Your task to perform on an android device: Do I have any events tomorrow? Image 0: 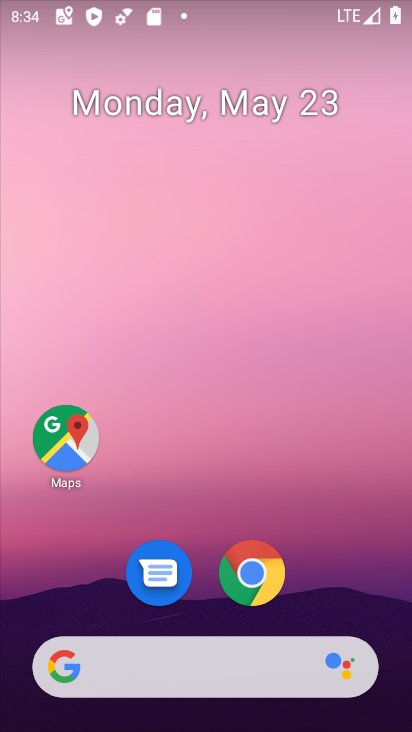
Step 0: drag from (163, 498) to (184, 19)
Your task to perform on an android device: Do I have any events tomorrow? Image 1: 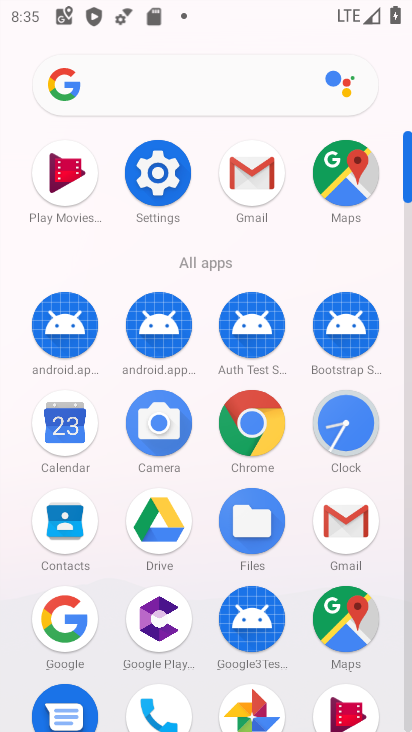
Step 1: click (66, 414)
Your task to perform on an android device: Do I have any events tomorrow? Image 2: 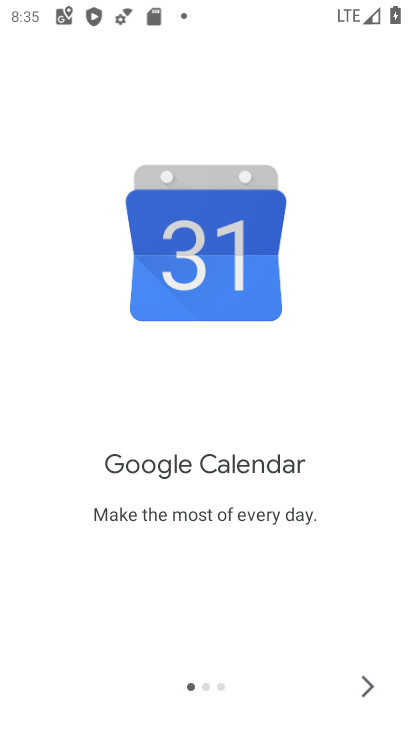
Step 2: click (372, 684)
Your task to perform on an android device: Do I have any events tomorrow? Image 3: 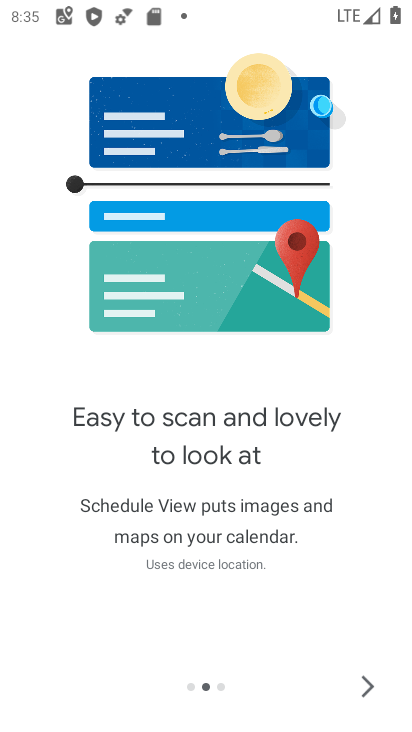
Step 3: click (370, 684)
Your task to perform on an android device: Do I have any events tomorrow? Image 4: 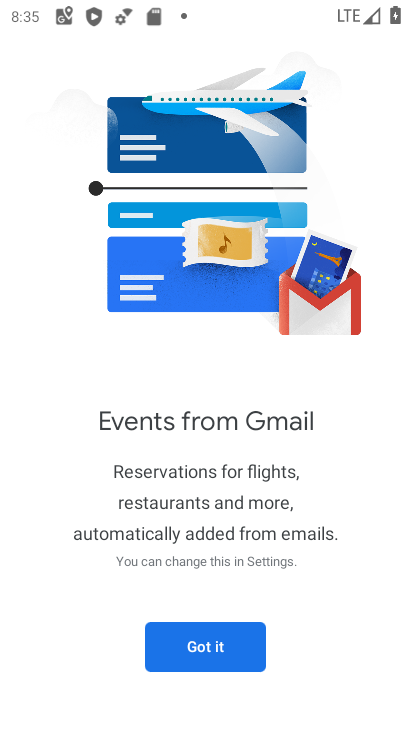
Step 4: click (241, 637)
Your task to perform on an android device: Do I have any events tomorrow? Image 5: 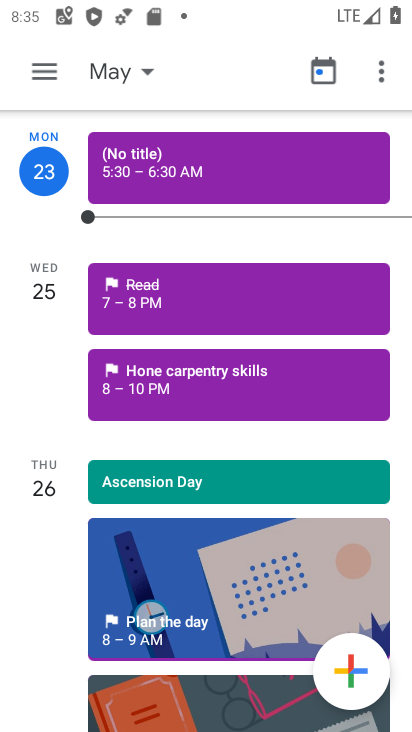
Step 5: click (43, 66)
Your task to perform on an android device: Do I have any events tomorrow? Image 6: 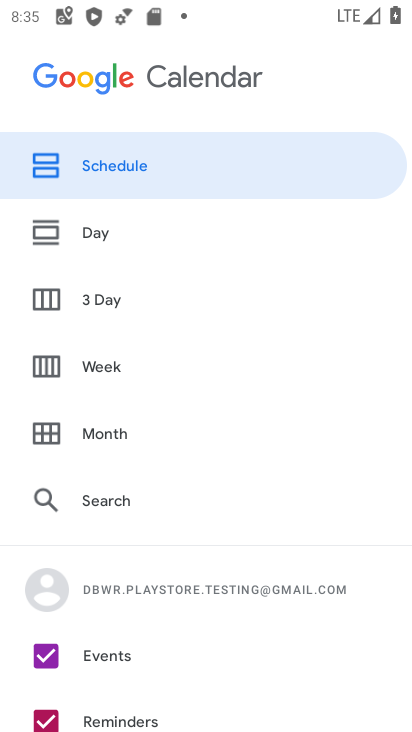
Step 6: click (81, 360)
Your task to perform on an android device: Do I have any events tomorrow? Image 7: 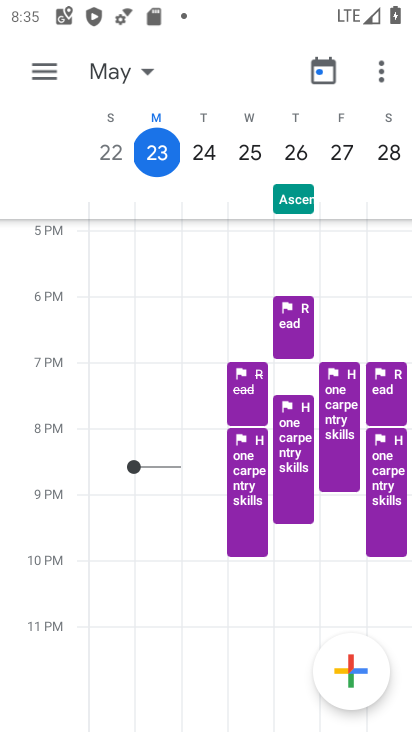
Step 7: task complete